Your task to perform on an android device: What is the recent news? Image 0: 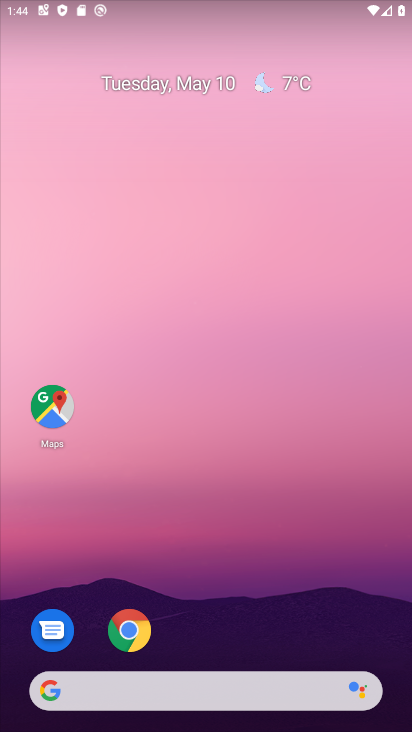
Step 0: drag from (244, 590) to (216, 16)
Your task to perform on an android device: What is the recent news? Image 1: 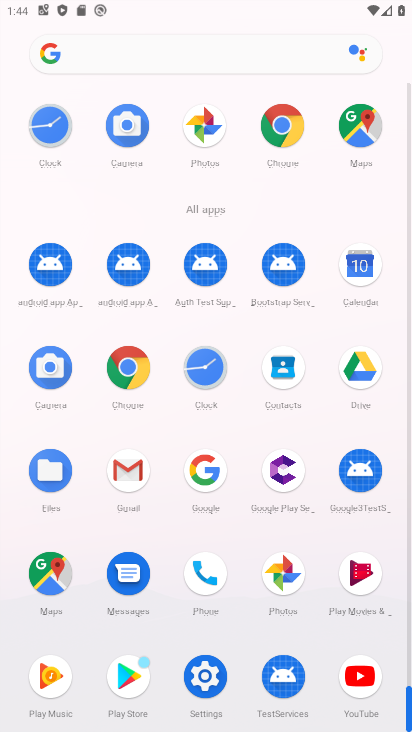
Step 1: click (124, 364)
Your task to perform on an android device: What is the recent news? Image 2: 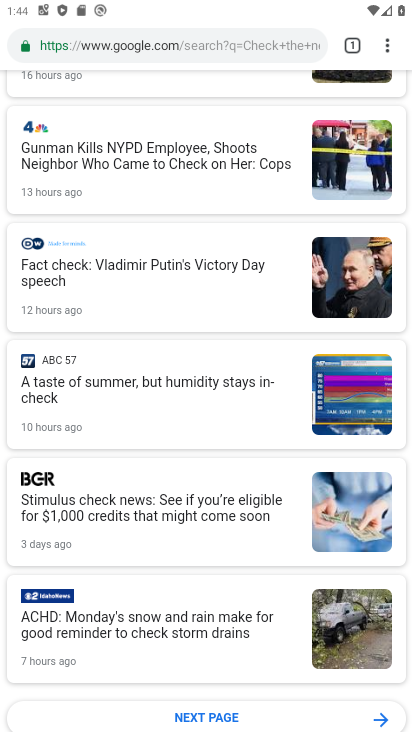
Step 2: click (171, 45)
Your task to perform on an android device: What is the recent news? Image 3: 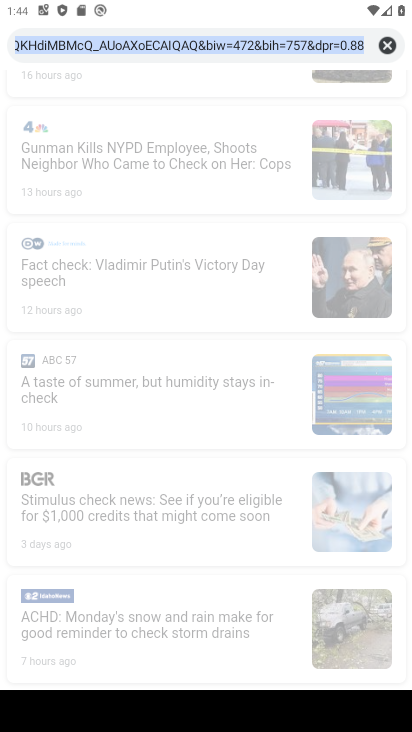
Step 3: click (380, 38)
Your task to perform on an android device: What is the recent news? Image 4: 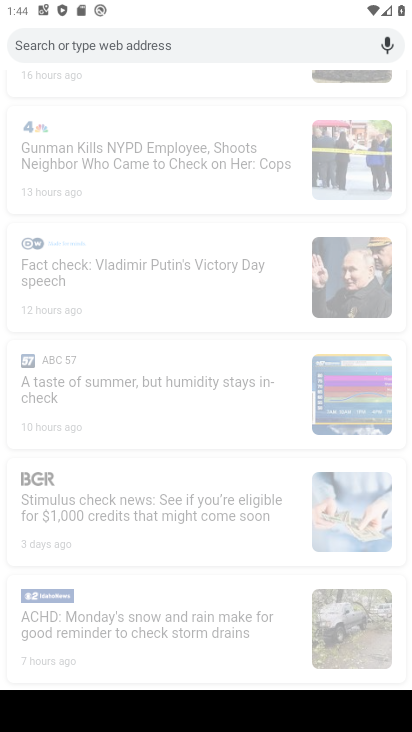
Step 4: click (112, 167)
Your task to perform on an android device: What is the recent news? Image 5: 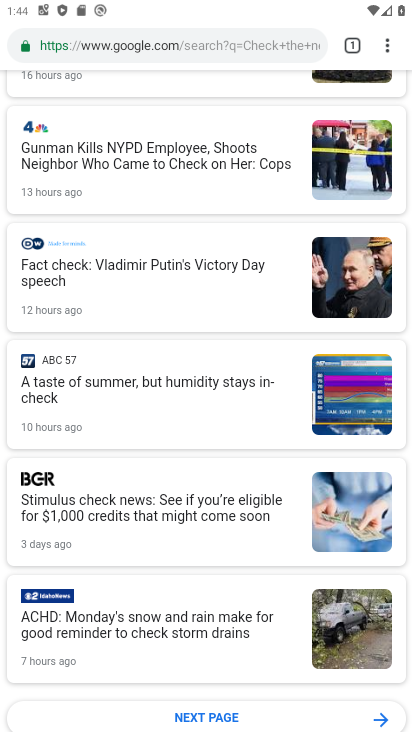
Step 5: task complete